Your task to perform on an android device: Go to sound settings Image 0: 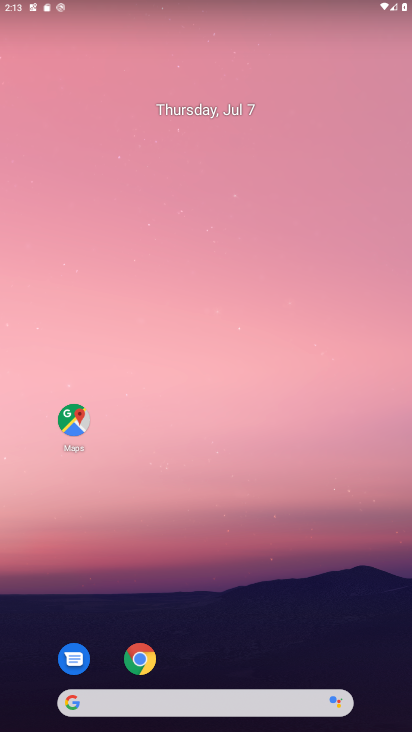
Step 0: drag from (182, 667) to (290, 6)
Your task to perform on an android device: Go to sound settings Image 1: 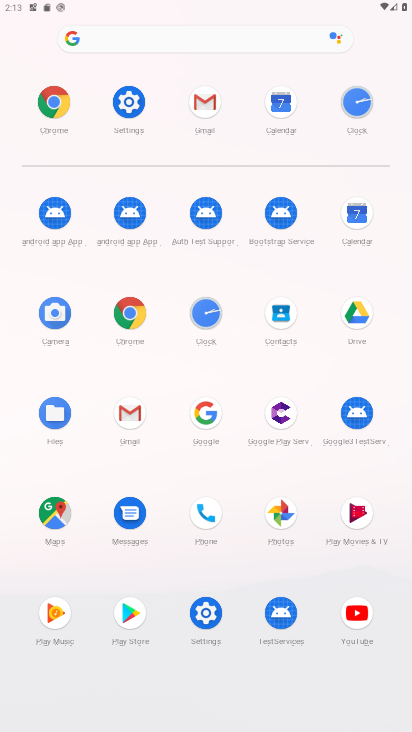
Step 1: click (100, 100)
Your task to perform on an android device: Go to sound settings Image 2: 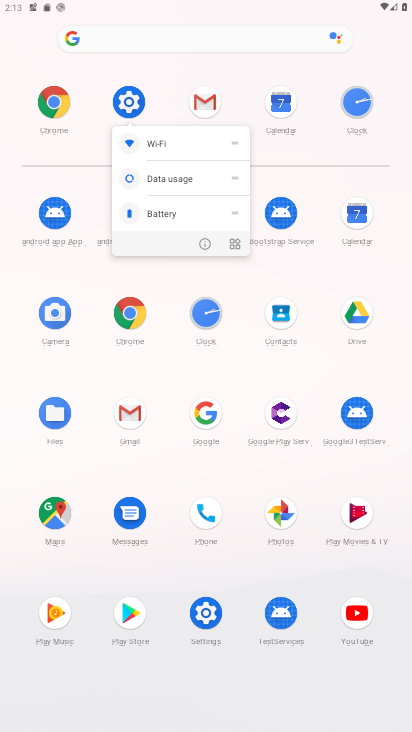
Step 2: click (205, 242)
Your task to perform on an android device: Go to sound settings Image 3: 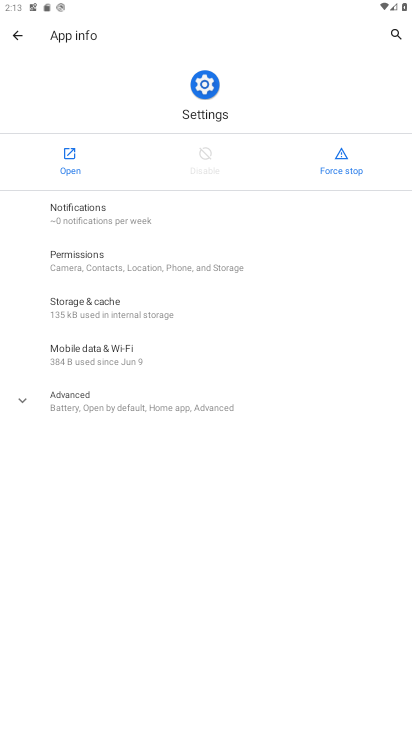
Step 3: click (63, 162)
Your task to perform on an android device: Go to sound settings Image 4: 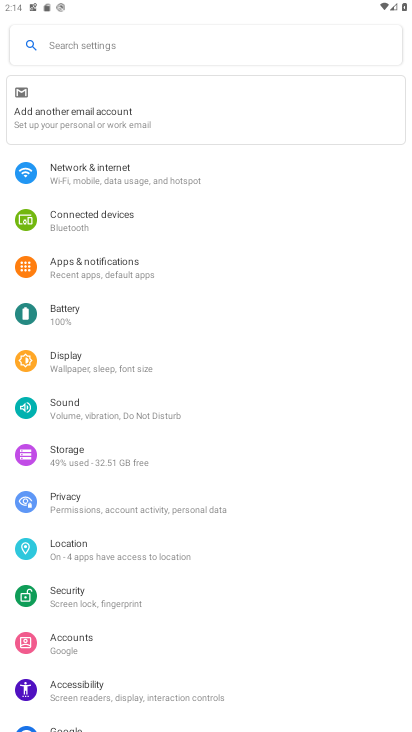
Step 4: click (99, 402)
Your task to perform on an android device: Go to sound settings Image 5: 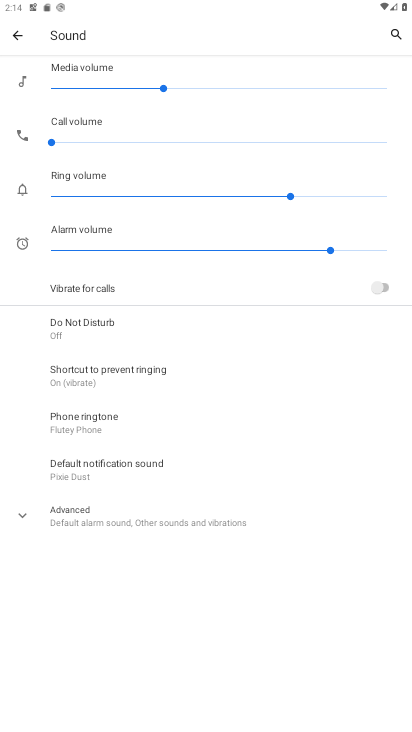
Step 5: task complete